Your task to perform on an android device: Open notification settings Image 0: 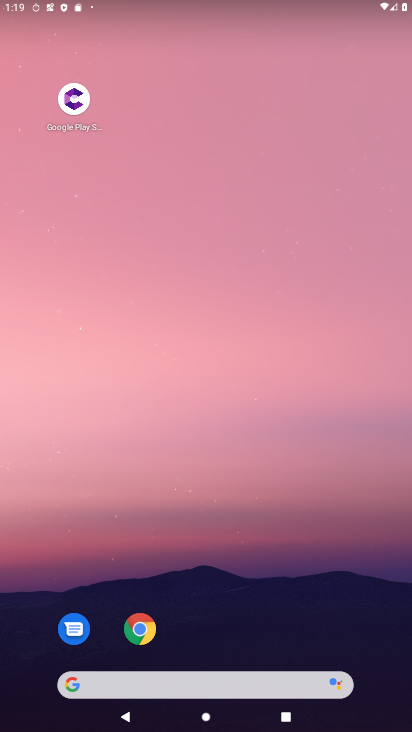
Step 0: drag from (324, 631) to (142, 88)
Your task to perform on an android device: Open notification settings Image 1: 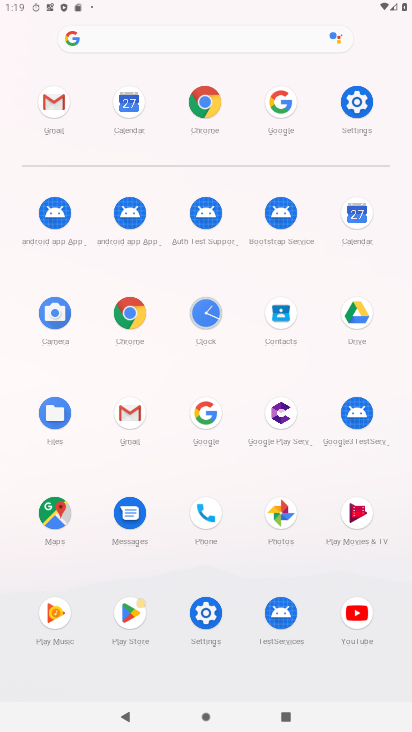
Step 1: click (203, 617)
Your task to perform on an android device: Open notification settings Image 2: 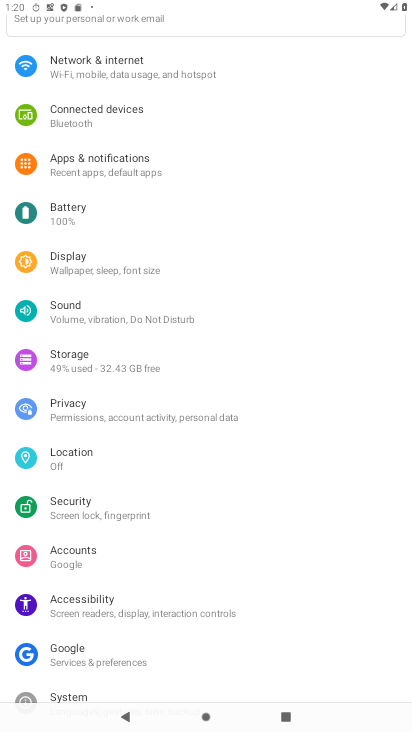
Step 2: click (150, 167)
Your task to perform on an android device: Open notification settings Image 3: 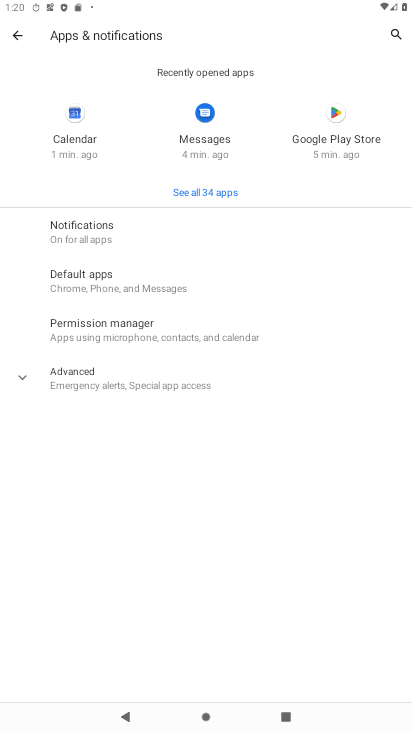
Step 3: click (55, 229)
Your task to perform on an android device: Open notification settings Image 4: 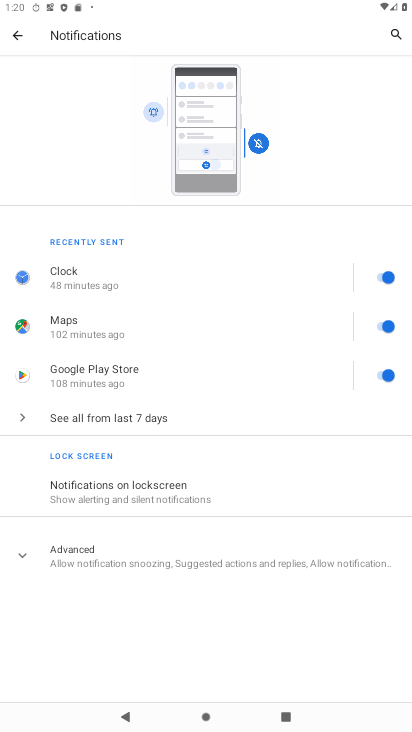
Step 4: task complete